Your task to perform on an android device: Check the news Image 0: 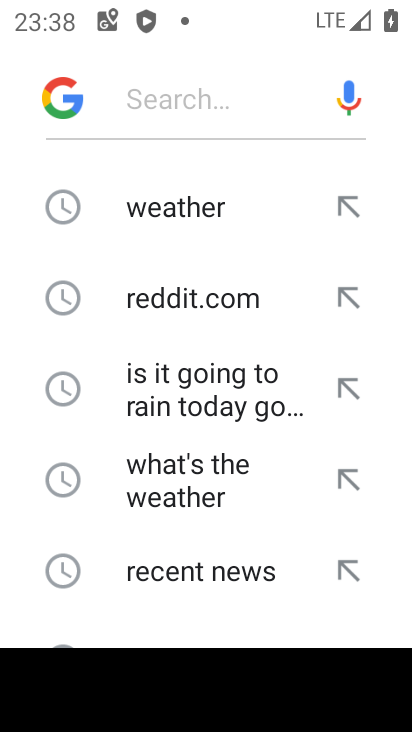
Step 0: press home button
Your task to perform on an android device: Check the news Image 1: 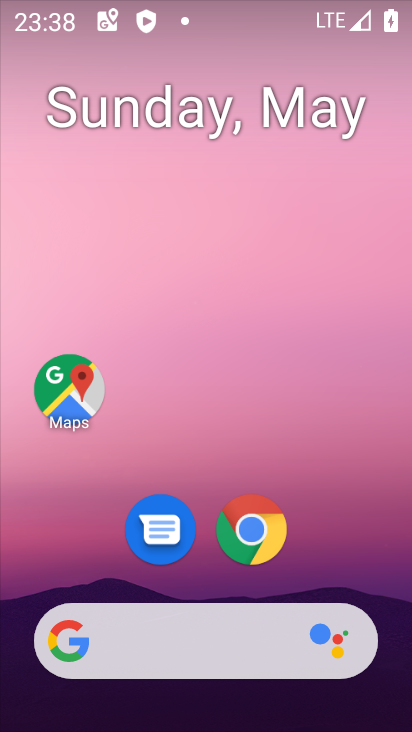
Step 1: click (278, 513)
Your task to perform on an android device: Check the news Image 2: 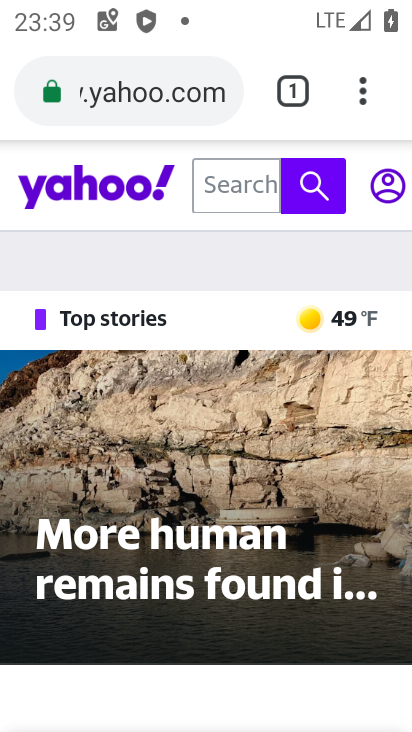
Step 2: click (181, 83)
Your task to perform on an android device: Check the news Image 3: 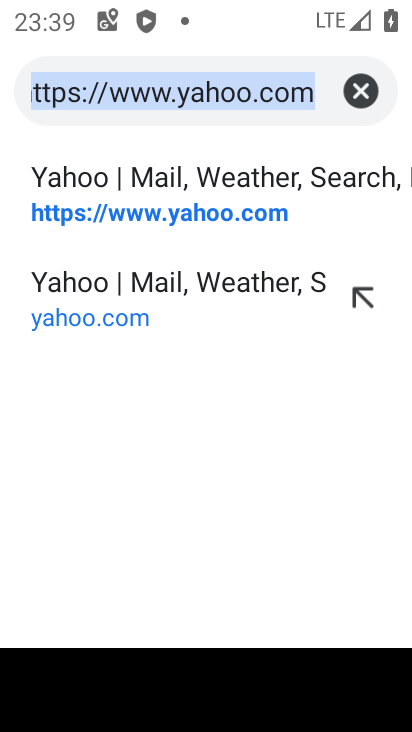
Step 3: click (368, 96)
Your task to perform on an android device: Check the news Image 4: 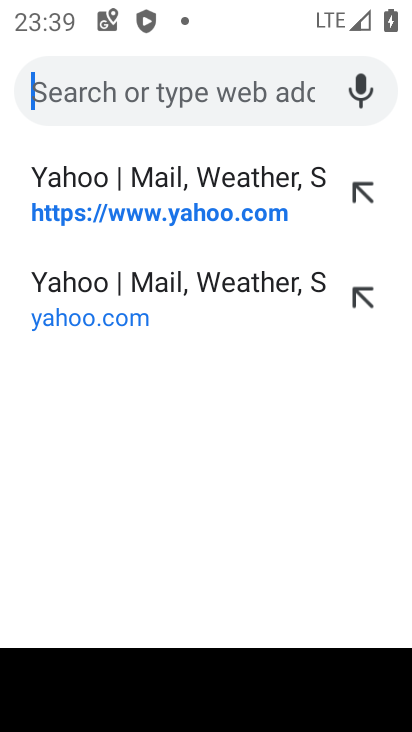
Step 4: type "check the news"
Your task to perform on an android device: Check the news Image 5: 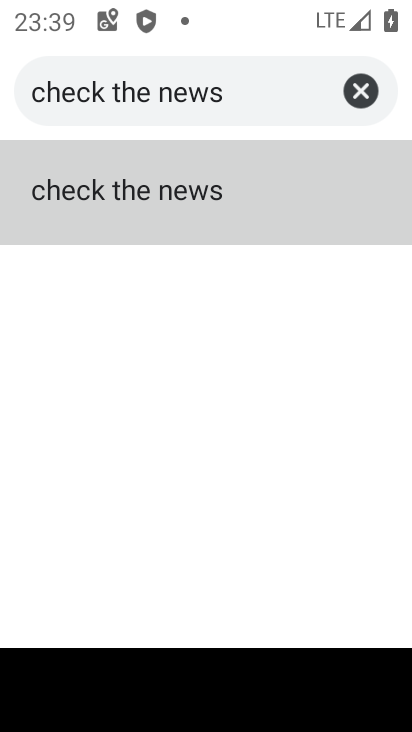
Step 5: click (150, 192)
Your task to perform on an android device: Check the news Image 6: 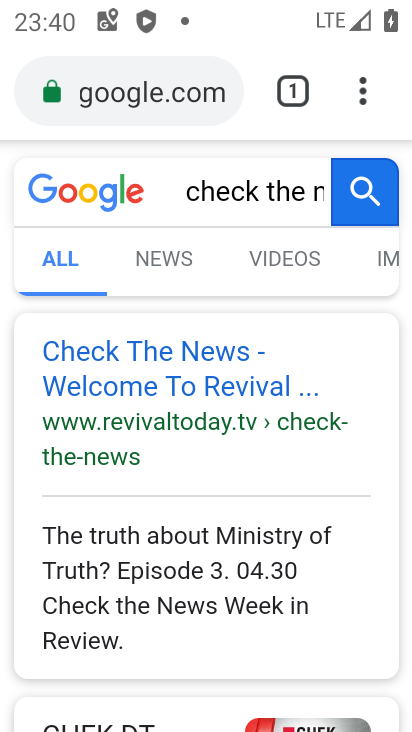
Step 6: task complete